Your task to perform on an android device: turn pop-ups on in chrome Image 0: 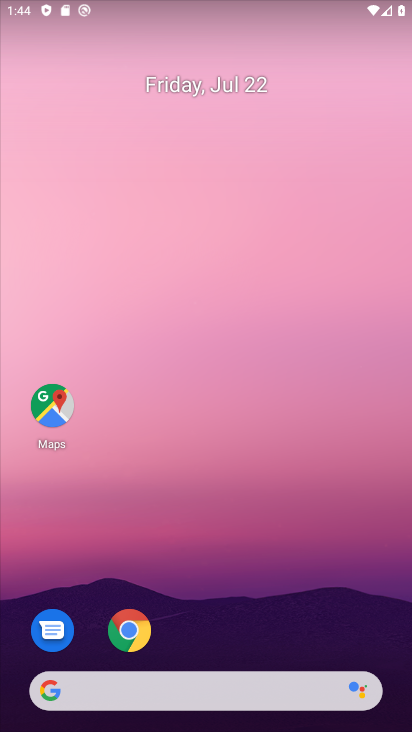
Step 0: click (129, 633)
Your task to perform on an android device: turn pop-ups on in chrome Image 1: 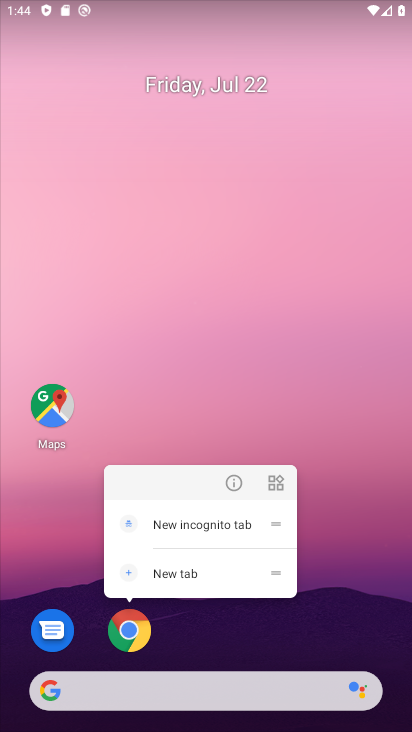
Step 1: click (132, 634)
Your task to perform on an android device: turn pop-ups on in chrome Image 2: 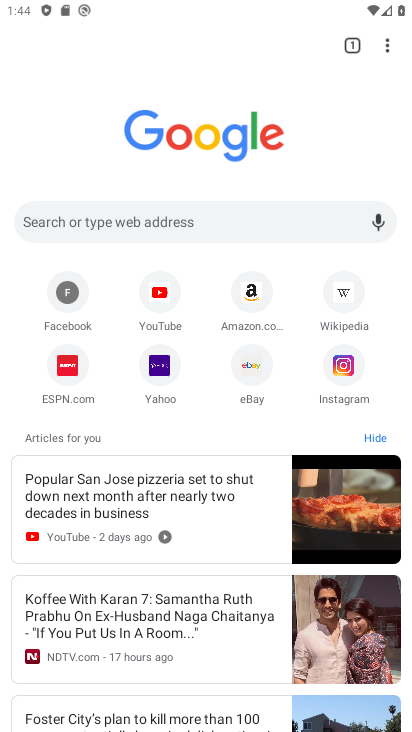
Step 2: click (382, 40)
Your task to perform on an android device: turn pop-ups on in chrome Image 3: 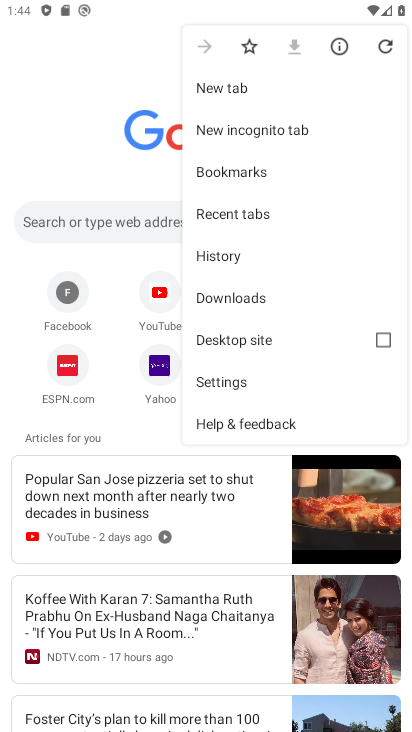
Step 3: click (215, 376)
Your task to perform on an android device: turn pop-ups on in chrome Image 4: 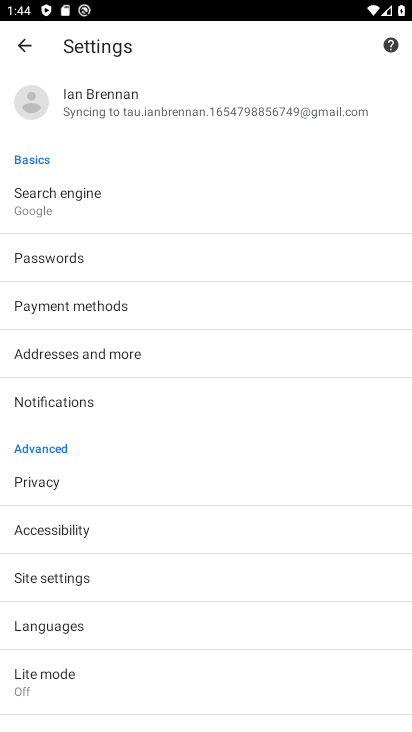
Step 4: click (66, 590)
Your task to perform on an android device: turn pop-ups on in chrome Image 5: 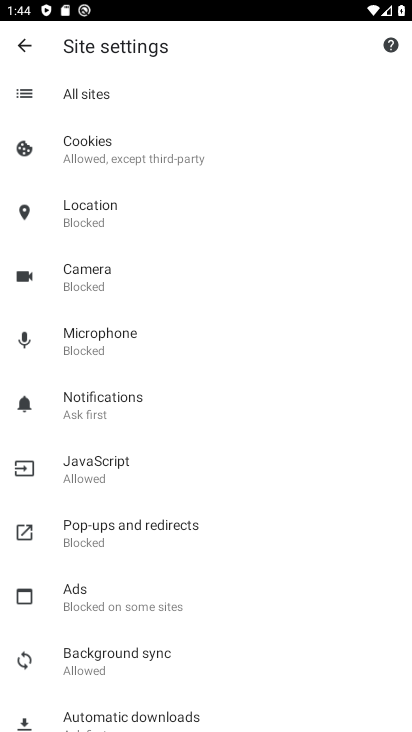
Step 5: click (98, 544)
Your task to perform on an android device: turn pop-ups on in chrome Image 6: 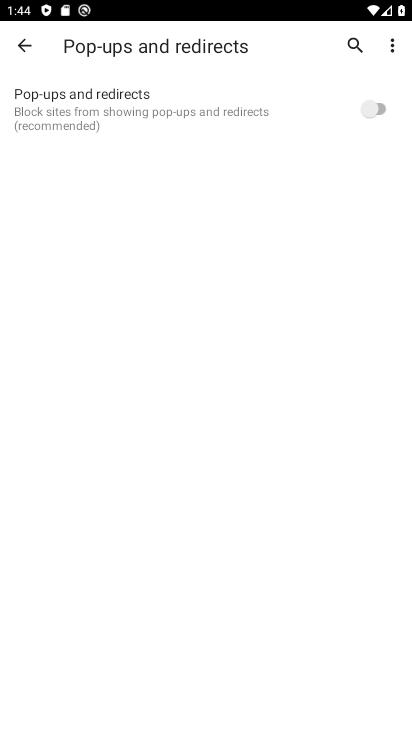
Step 6: click (376, 99)
Your task to perform on an android device: turn pop-ups on in chrome Image 7: 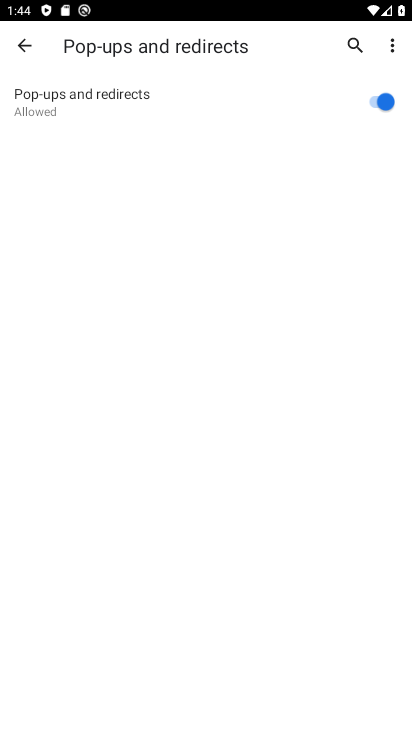
Step 7: task complete